Your task to perform on an android device: Empty the shopping cart on target.com. Add logitech g933 to the cart on target.com, then select checkout. Image 0: 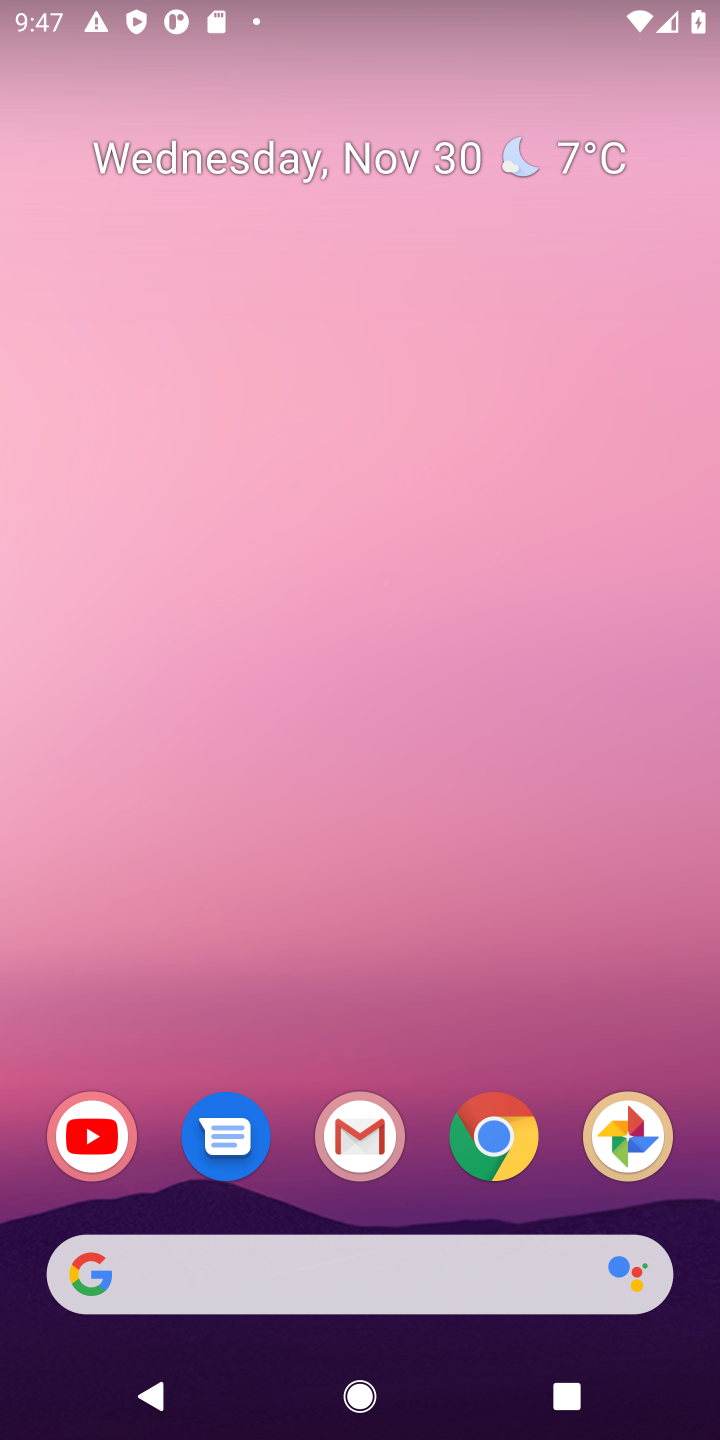
Step 0: click (503, 1154)
Your task to perform on an android device: Empty the shopping cart on target.com. Add logitech g933 to the cart on target.com, then select checkout. Image 1: 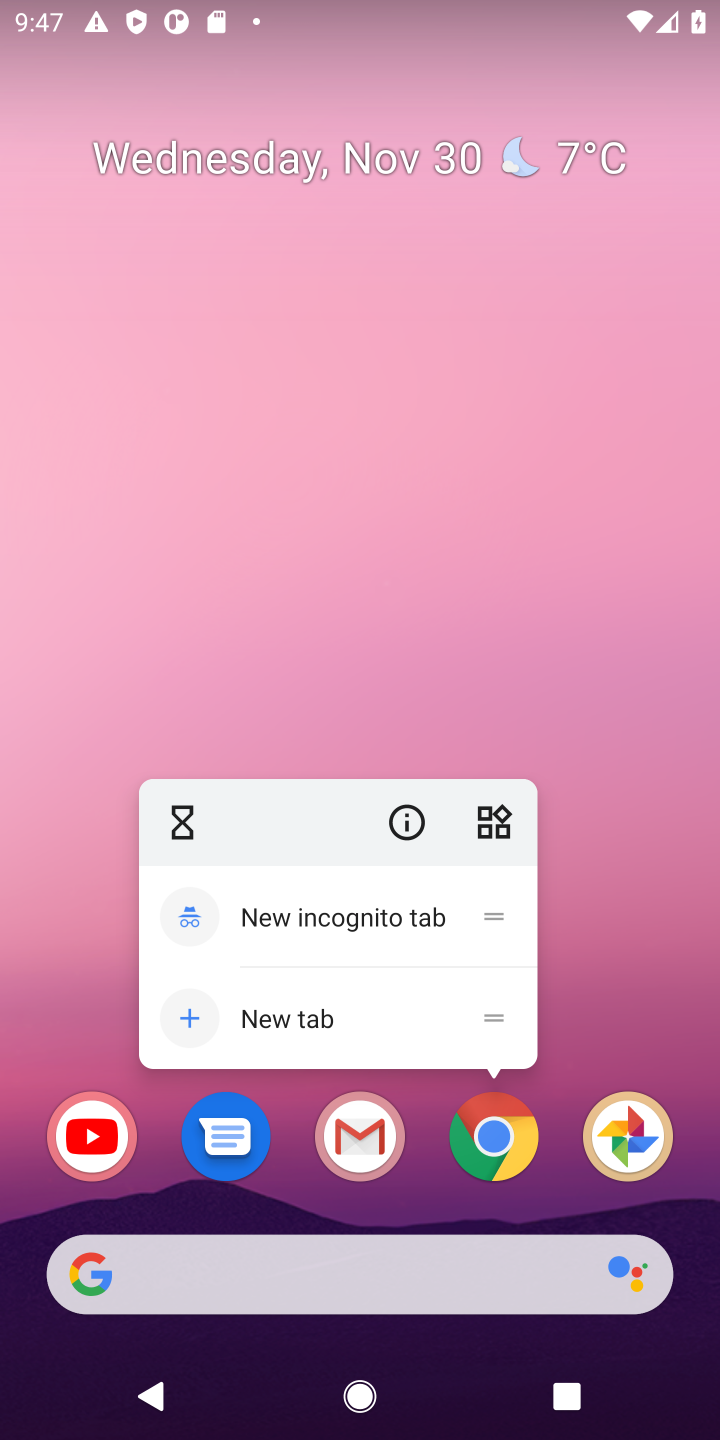
Step 1: click (503, 1142)
Your task to perform on an android device: Empty the shopping cart on target.com. Add logitech g933 to the cart on target.com, then select checkout. Image 2: 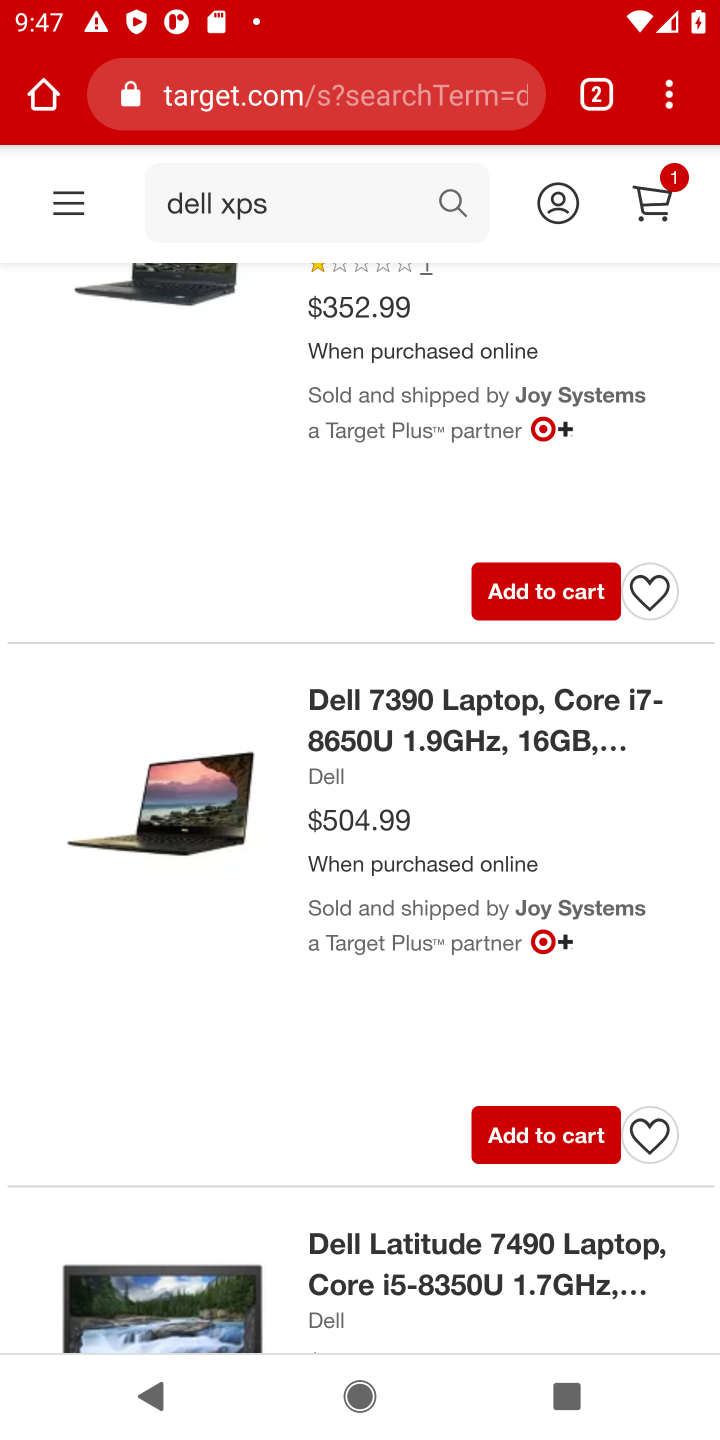
Step 2: click (656, 212)
Your task to perform on an android device: Empty the shopping cart on target.com. Add logitech g933 to the cart on target.com, then select checkout. Image 3: 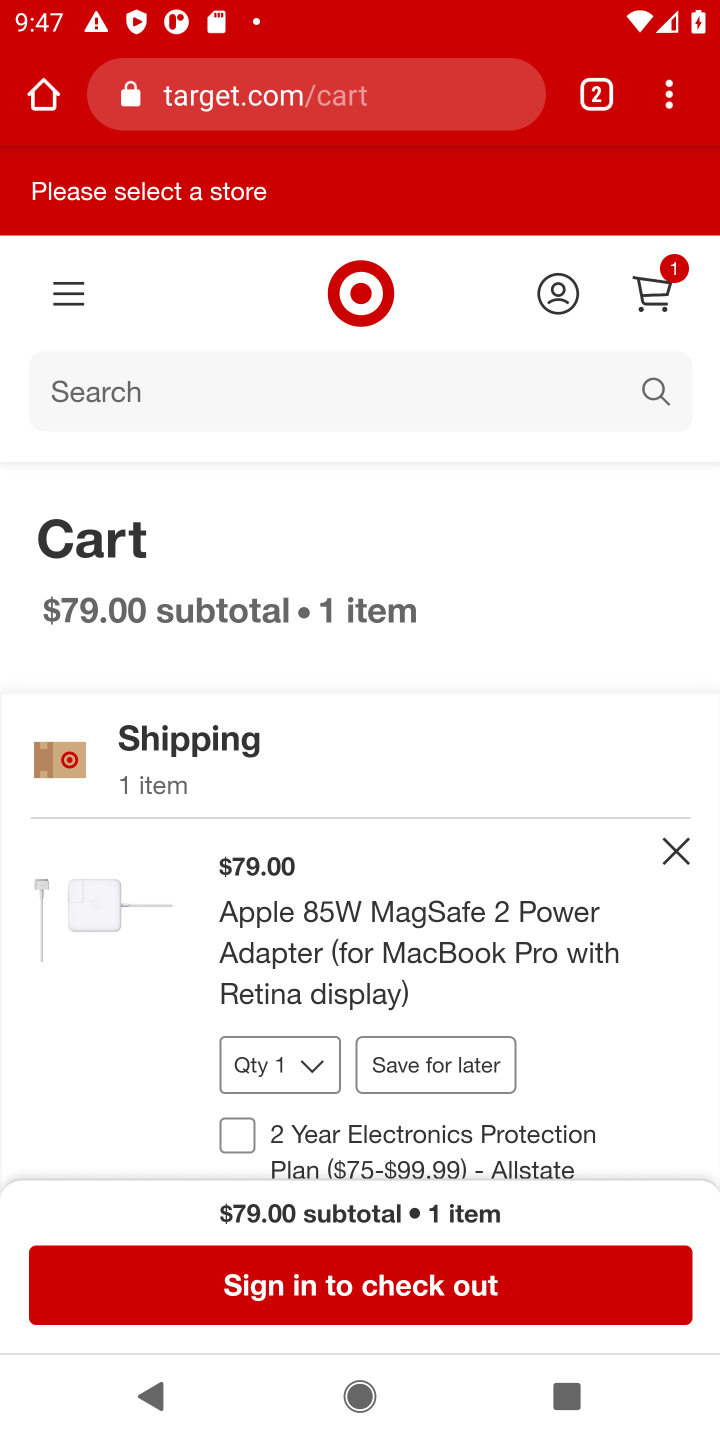
Step 3: click (677, 858)
Your task to perform on an android device: Empty the shopping cart on target.com. Add logitech g933 to the cart on target.com, then select checkout. Image 4: 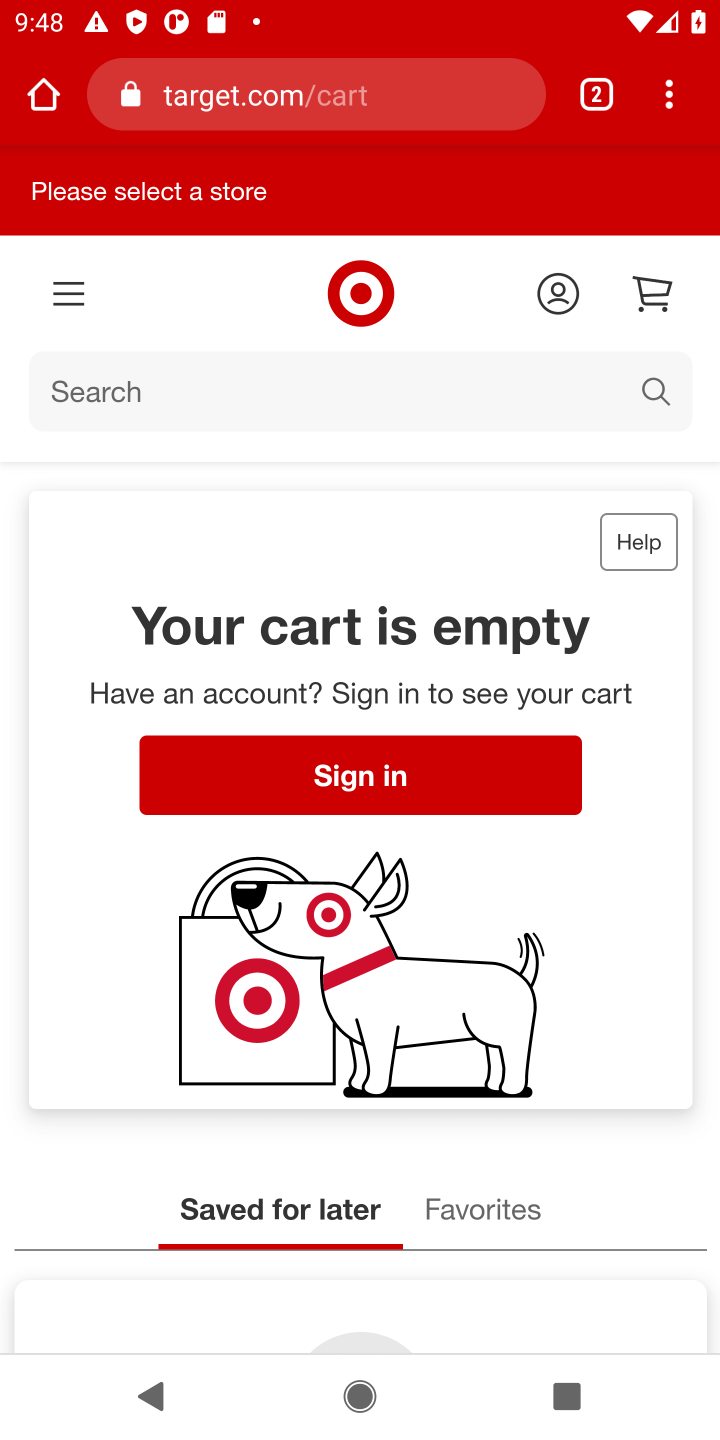
Step 4: click (85, 380)
Your task to perform on an android device: Empty the shopping cart on target.com. Add logitech g933 to the cart on target.com, then select checkout. Image 5: 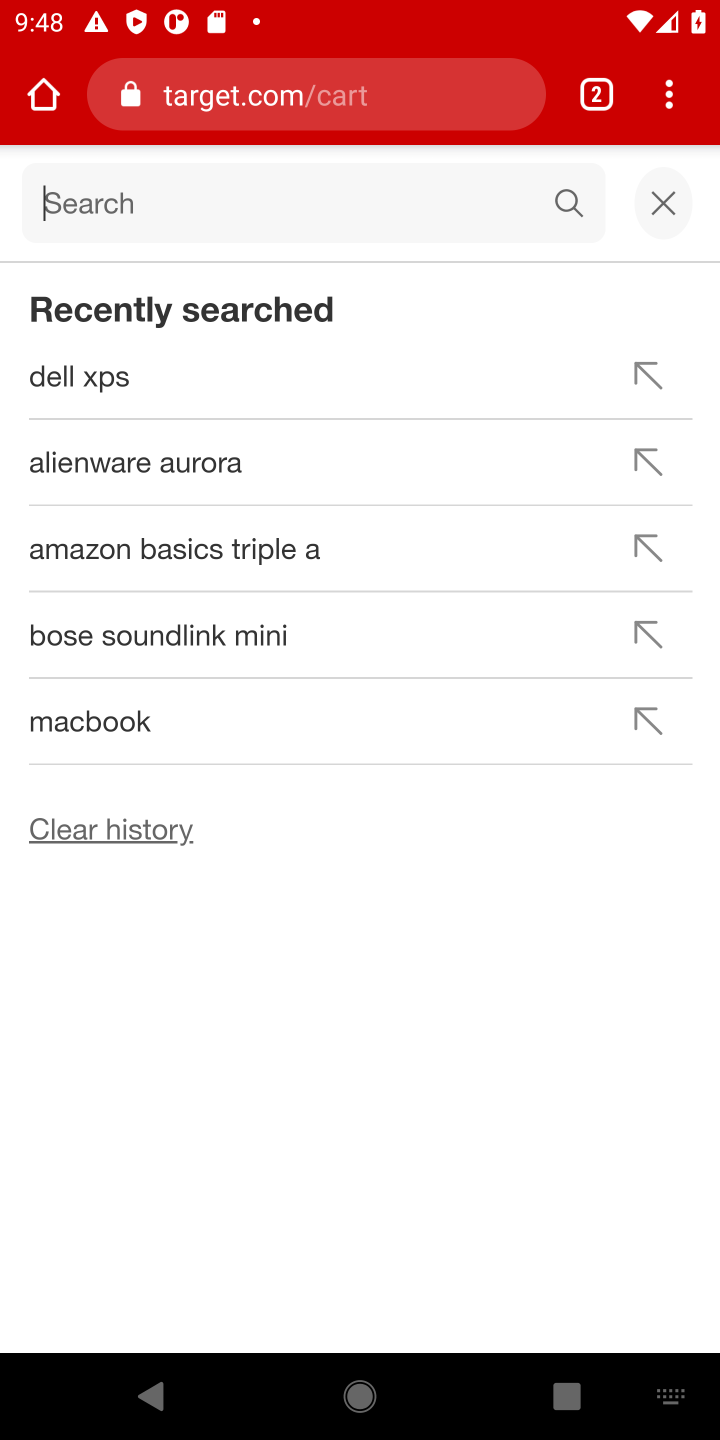
Step 5: type "logitech g933"
Your task to perform on an android device: Empty the shopping cart on target.com. Add logitech g933 to the cart on target.com, then select checkout. Image 6: 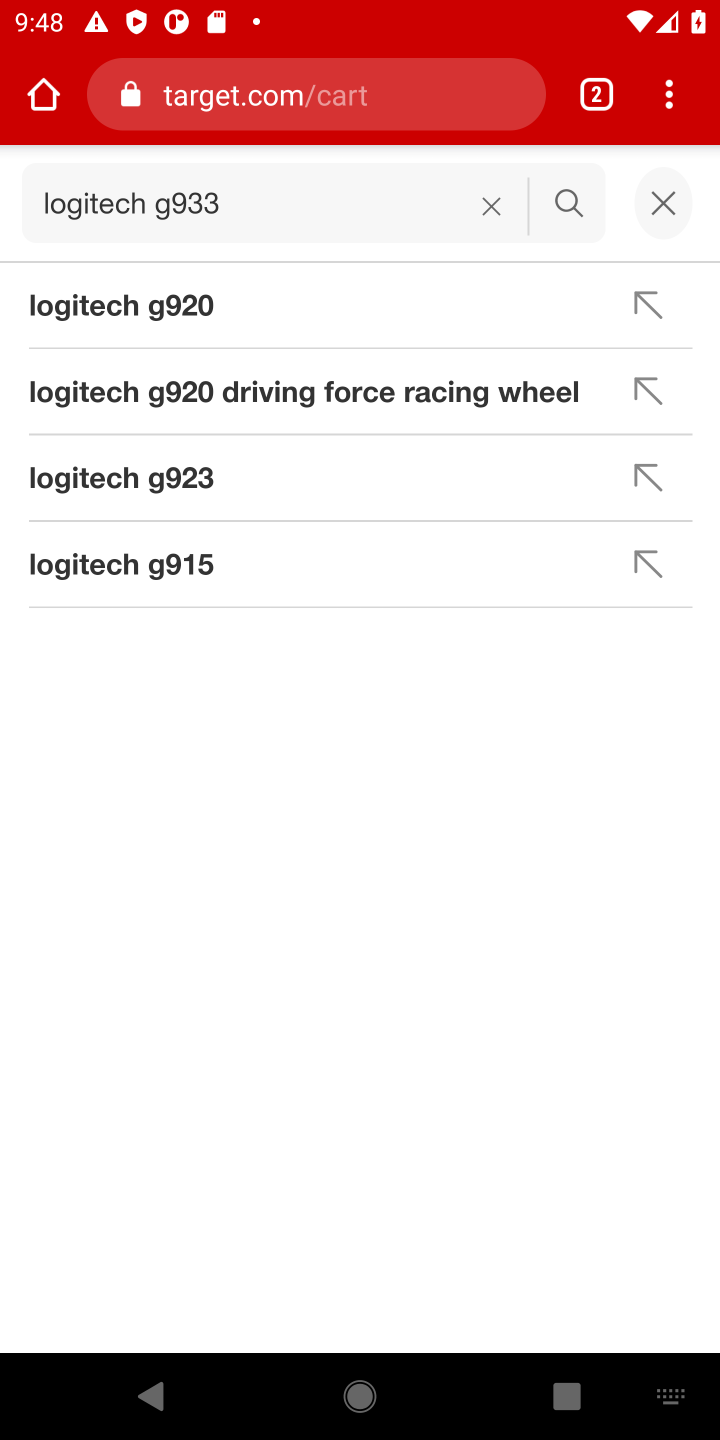
Step 6: click (574, 213)
Your task to perform on an android device: Empty the shopping cart on target.com. Add logitech g933 to the cart on target.com, then select checkout. Image 7: 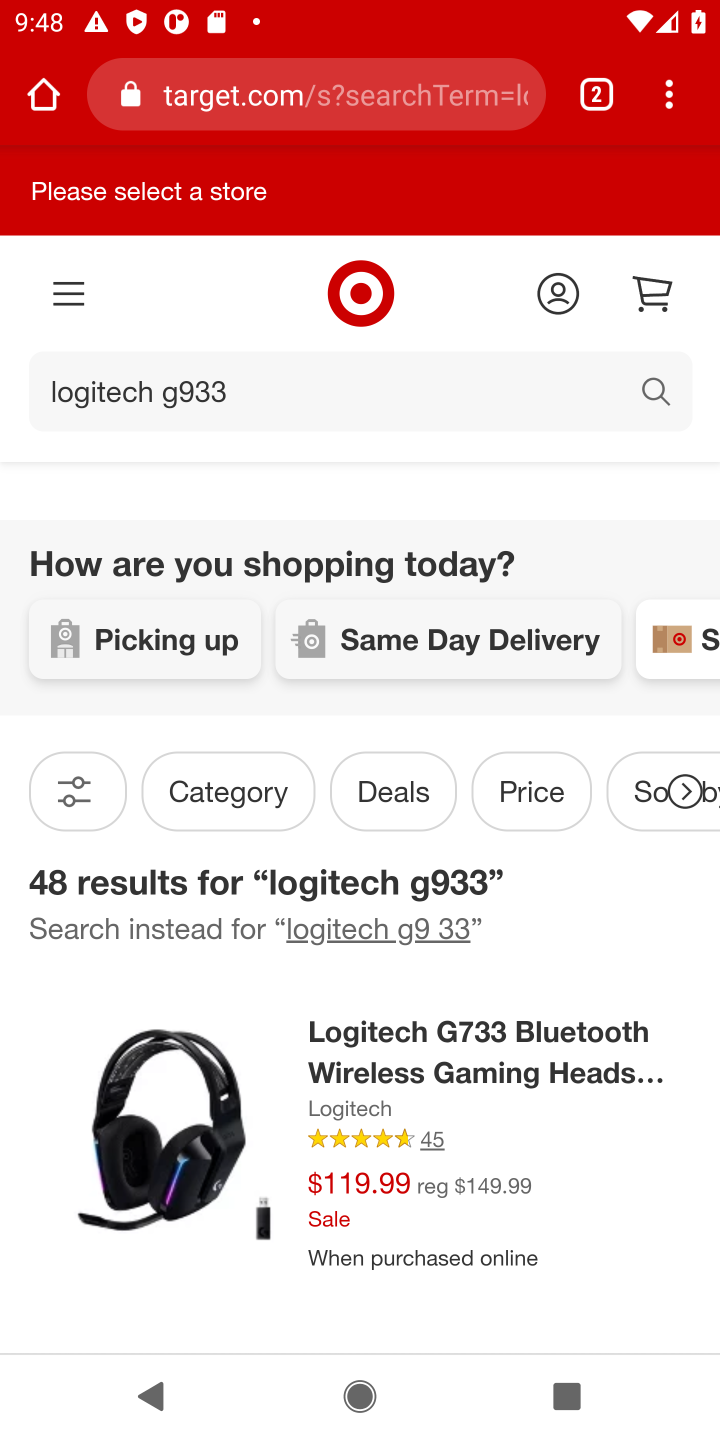
Step 7: task complete